Your task to perform on an android device: set default search engine in the chrome app Image 0: 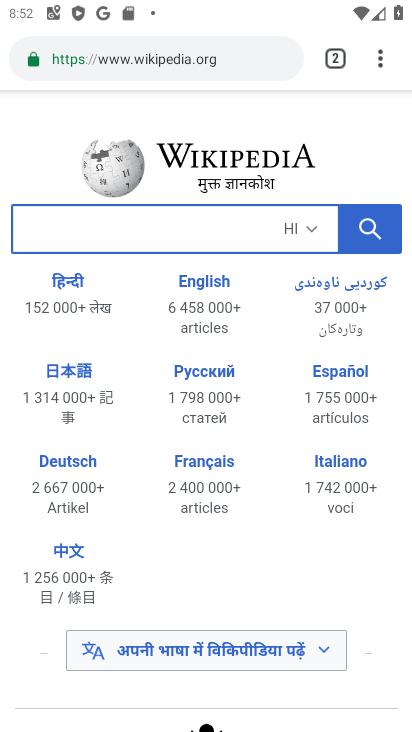
Step 0: press home button
Your task to perform on an android device: set default search engine in the chrome app Image 1: 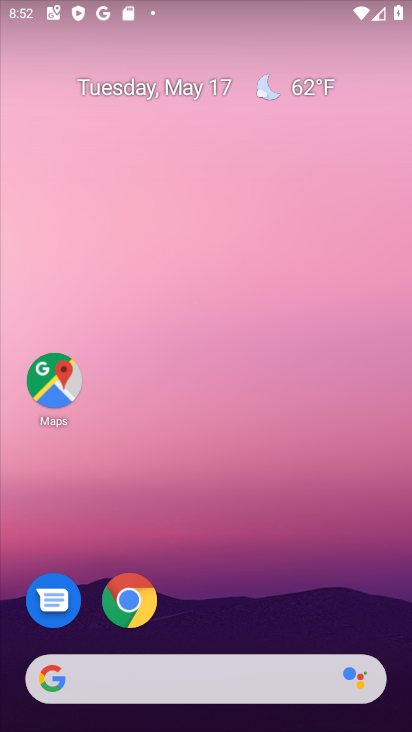
Step 1: click (128, 598)
Your task to perform on an android device: set default search engine in the chrome app Image 2: 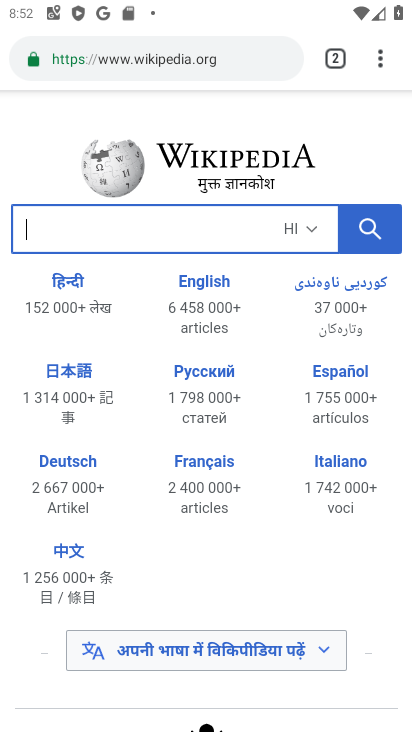
Step 2: click (380, 66)
Your task to perform on an android device: set default search engine in the chrome app Image 3: 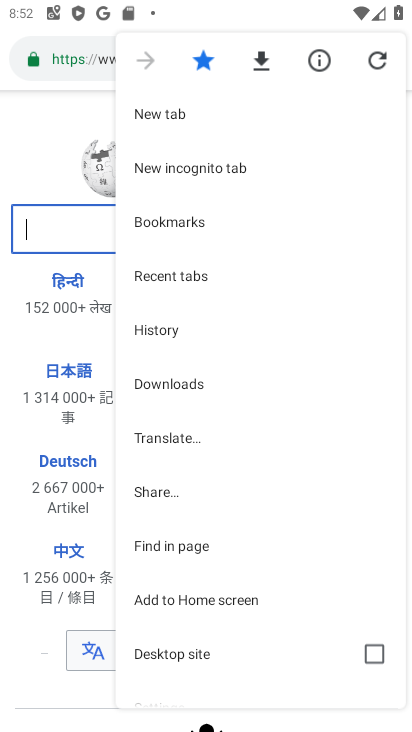
Step 3: drag from (181, 621) to (195, 296)
Your task to perform on an android device: set default search engine in the chrome app Image 4: 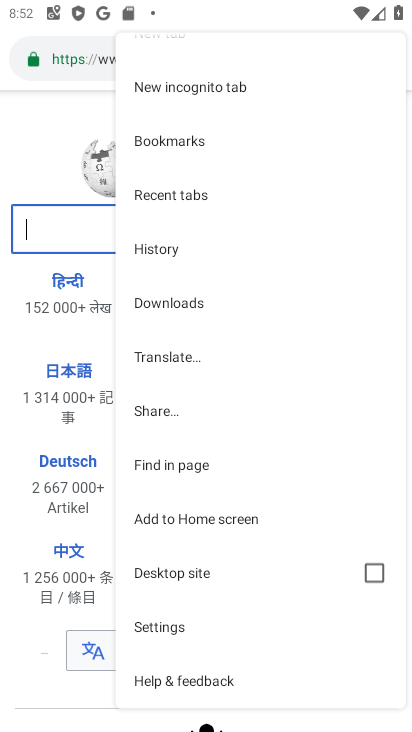
Step 4: click (160, 624)
Your task to perform on an android device: set default search engine in the chrome app Image 5: 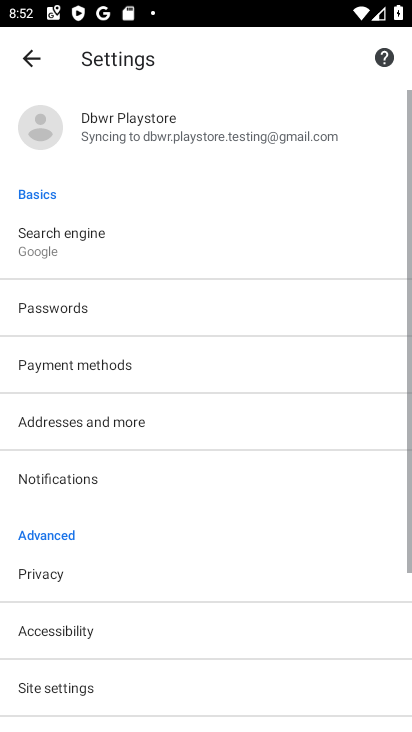
Step 5: click (67, 228)
Your task to perform on an android device: set default search engine in the chrome app Image 6: 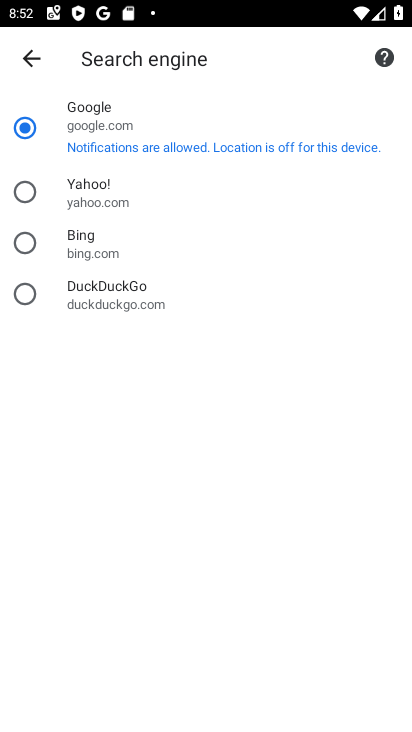
Step 6: click (36, 200)
Your task to perform on an android device: set default search engine in the chrome app Image 7: 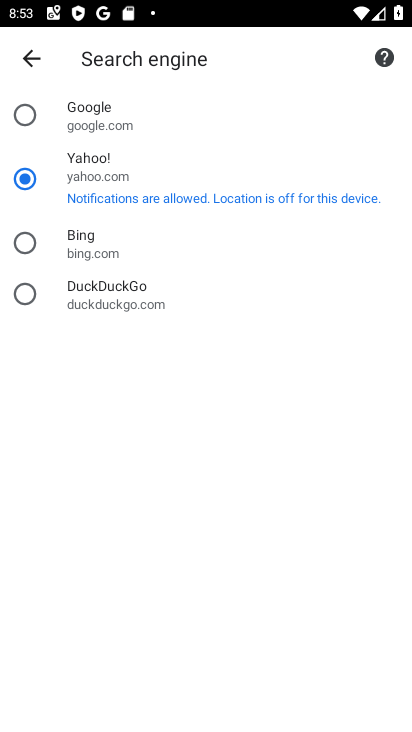
Step 7: task complete